Your task to perform on an android device: Open Youtube and go to the subscriptions tab Image 0: 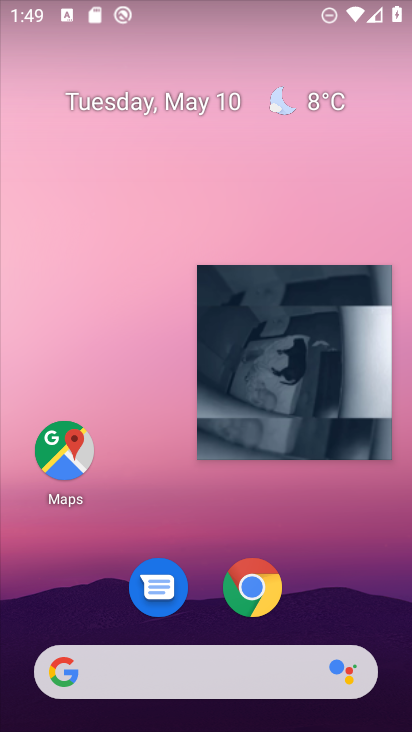
Step 0: drag from (393, 589) to (360, 319)
Your task to perform on an android device: Open Youtube and go to the subscriptions tab Image 1: 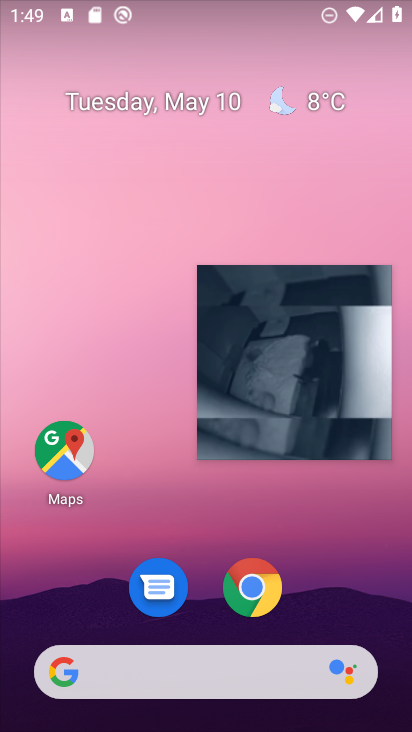
Step 1: drag from (370, 499) to (334, 282)
Your task to perform on an android device: Open Youtube and go to the subscriptions tab Image 2: 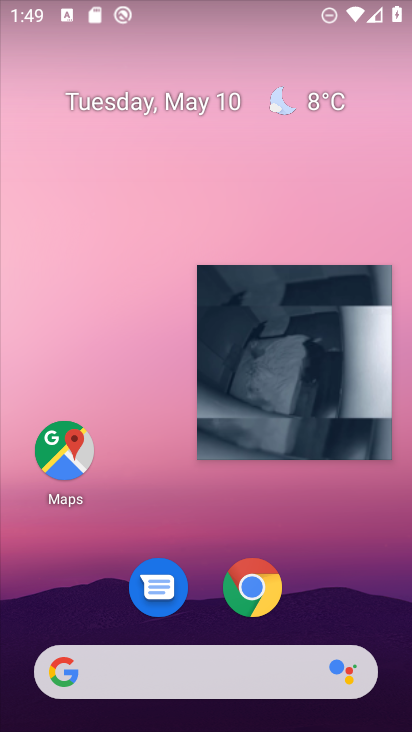
Step 2: drag from (407, 653) to (358, 271)
Your task to perform on an android device: Open Youtube and go to the subscriptions tab Image 3: 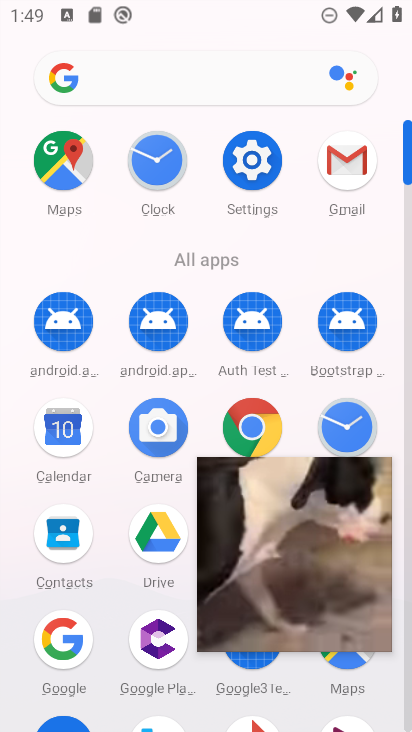
Step 3: drag from (407, 127) to (408, 18)
Your task to perform on an android device: Open Youtube and go to the subscriptions tab Image 4: 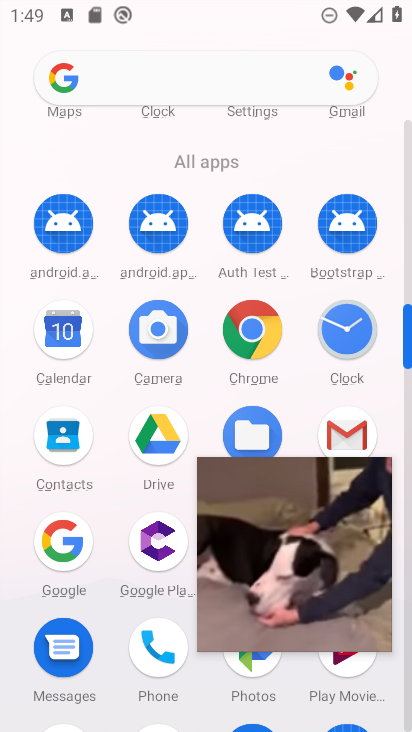
Step 4: drag from (409, 308) to (411, 123)
Your task to perform on an android device: Open Youtube and go to the subscriptions tab Image 5: 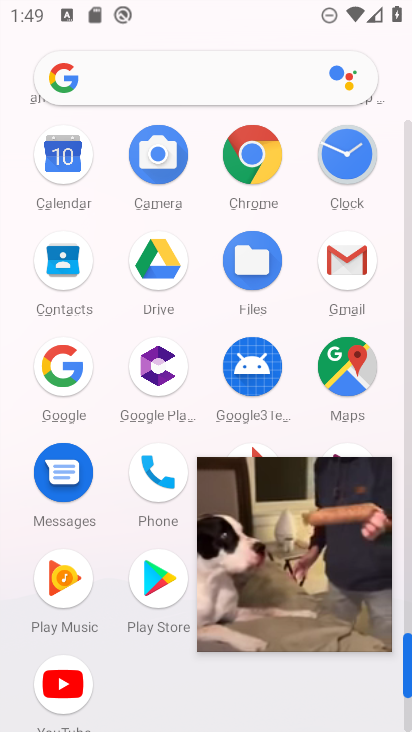
Step 5: click (76, 676)
Your task to perform on an android device: Open Youtube and go to the subscriptions tab Image 6: 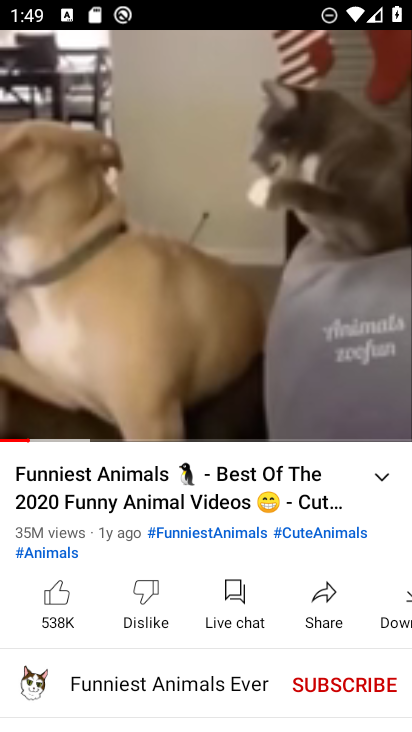
Step 6: press back button
Your task to perform on an android device: Open Youtube and go to the subscriptions tab Image 7: 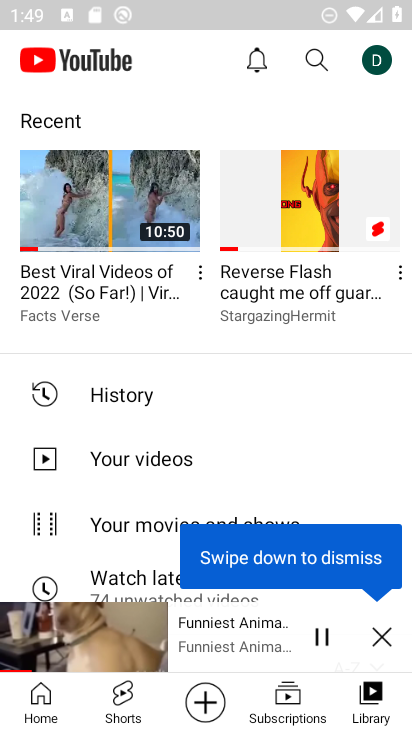
Step 7: click (295, 709)
Your task to perform on an android device: Open Youtube and go to the subscriptions tab Image 8: 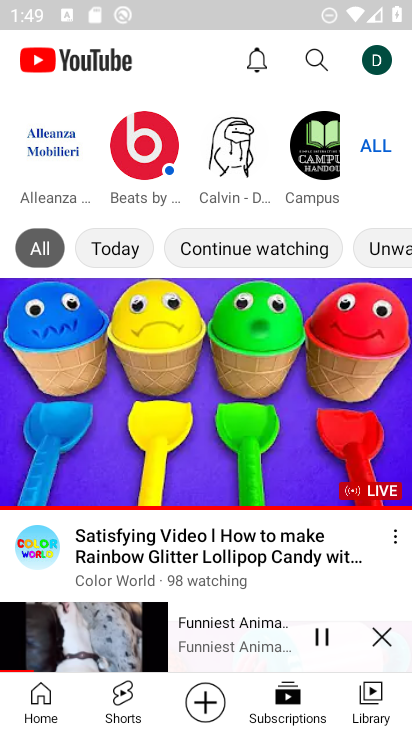
Step 8: click (388, 634)
Your task to perform on an android device: Open Youtube and go to the subscriptions tab Image 9: 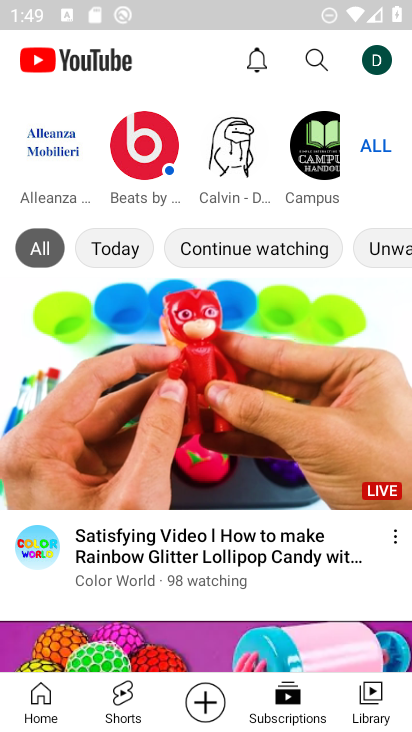
Step 9: task complete